Your task to perform on an android device: star an email in the gmail app Image 0: 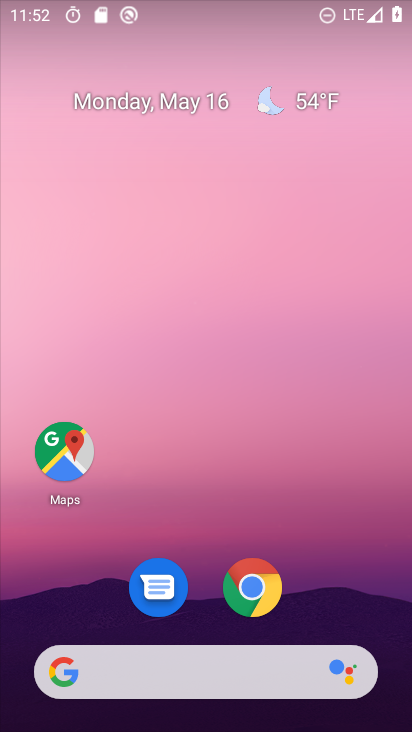
Step 0: click (212, 261)
Your task to perform on an android device: star an email in the gmail app Image 1: 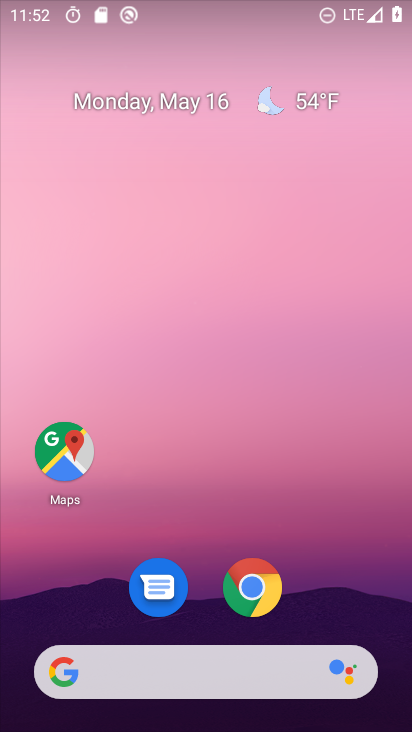
Step 1: drag from (214, 622) to (283, 72)
Your task to perform on an android device: star an email in the gmail app Image 2: 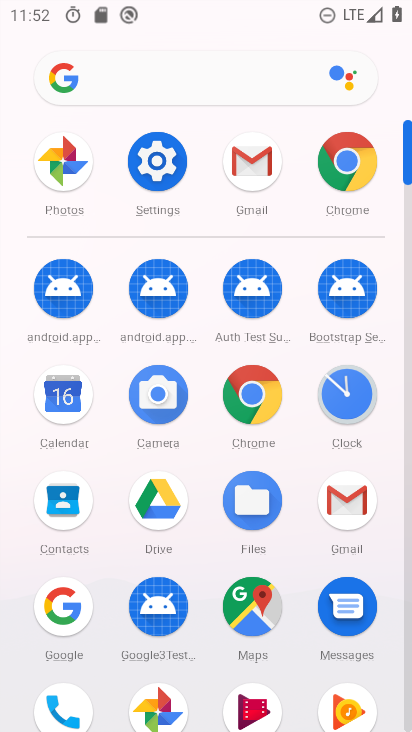
Step 2: click (351, 498)
Your task to perform on an android device: star an email in the gmail app Image 3: 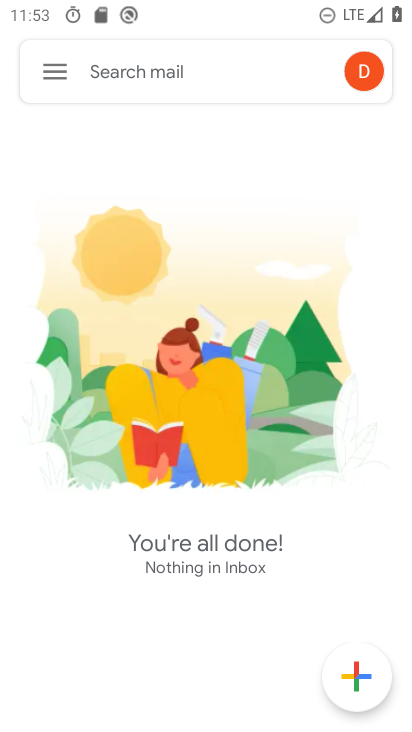
Step 3: click (67, 88)
Your task to perform on an android device: star an email in the gmail app Image 4: 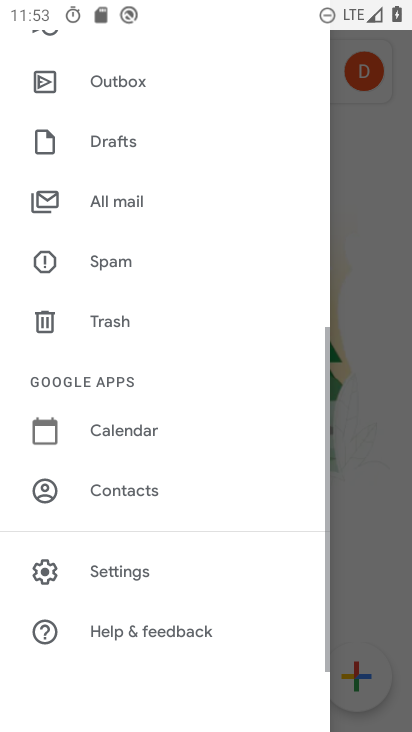
Step 4: drag from (161, 129) to (273, 715)
Your task to perform on an android device: star an email in the gmail app Image 5: 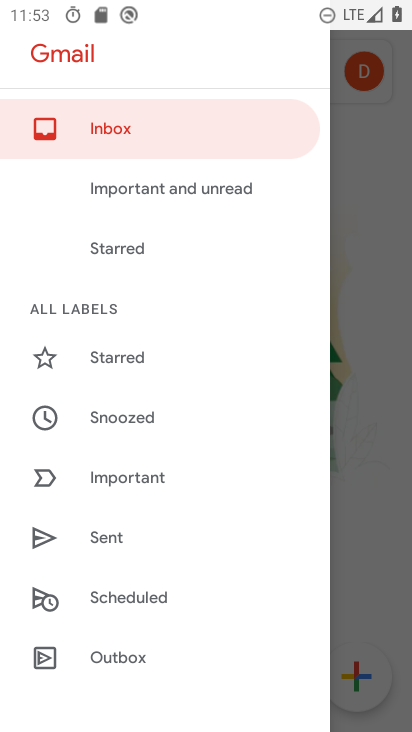
Step 5: click (136, 359)
Your task to perform on an android device: star an email in the gmail app Image 6: 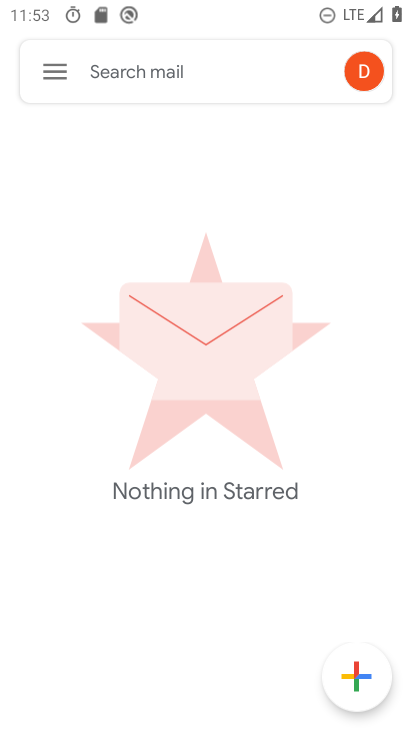
Step 6: task complete